Your task to perform on an android device: toggle sleep mode Image 0: 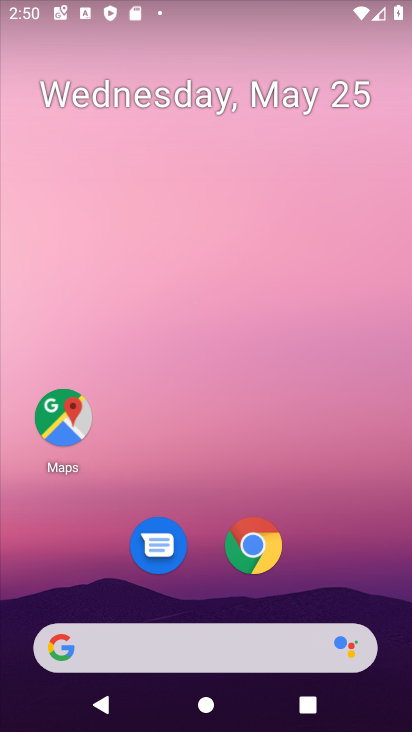
Step 0: drag from (346, 580) to (175, 1)
Your task to perform on an android device: toggle sleep mode Image 1: 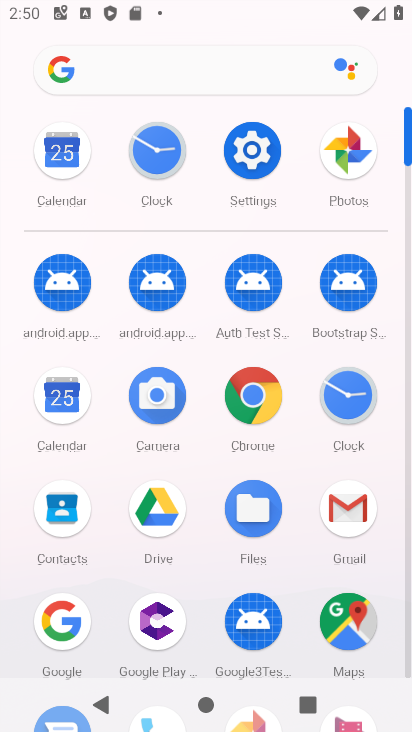
Step 1: click (251, 152)
Your task to perform on an android device: toggle sleep mode Image 2: 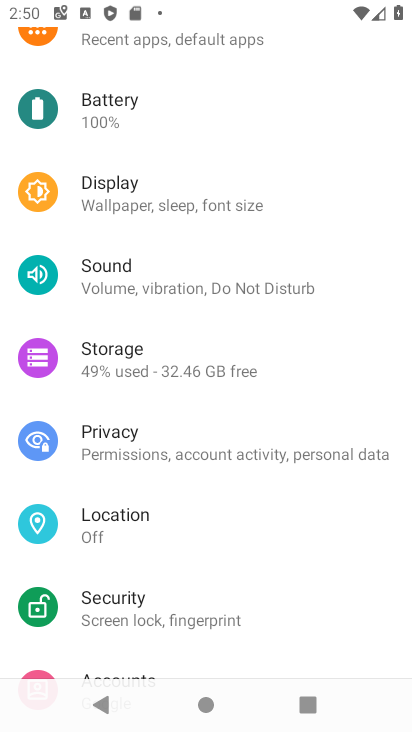
Step 2: click (284, 301)
Your task to perform on an android device: toggle sleep mode Image 3: 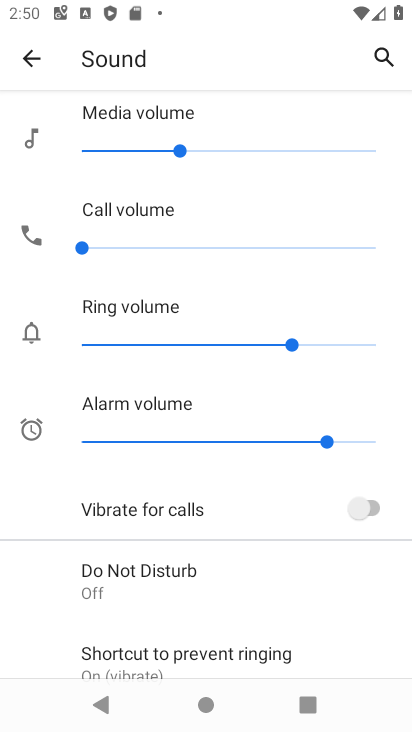
Step 3: click (216, 592)
Your task to perform on an android device: toggle sleep mode Image 4: 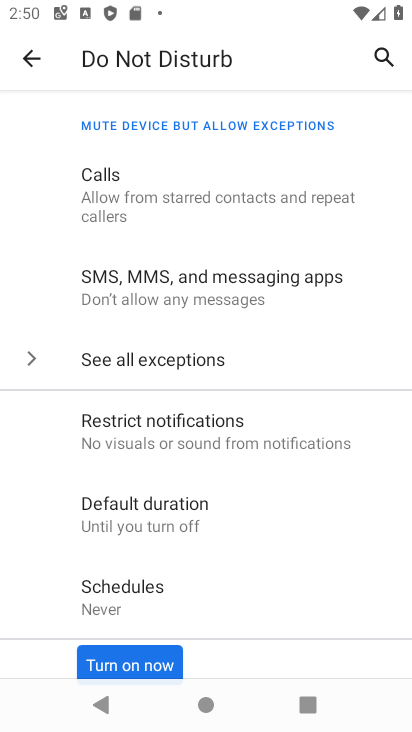
Step 4: click (156, 656)
Your task to perform on an android device: toggle sleep mode Image 5: 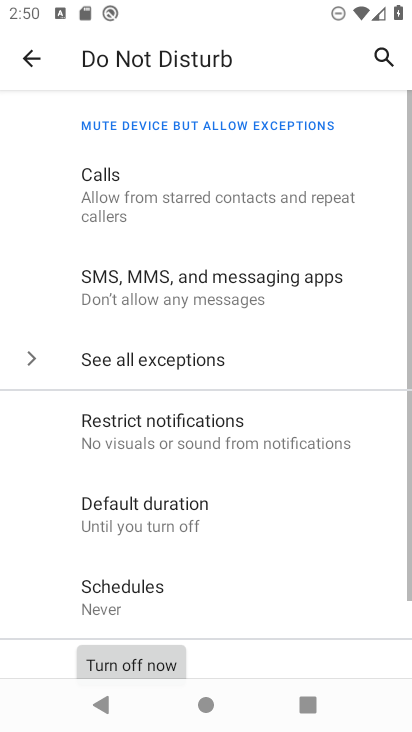
Step 5: task complete